Your task to perform on an android device: open the mobile data screen to see how much data has been used Image 0: 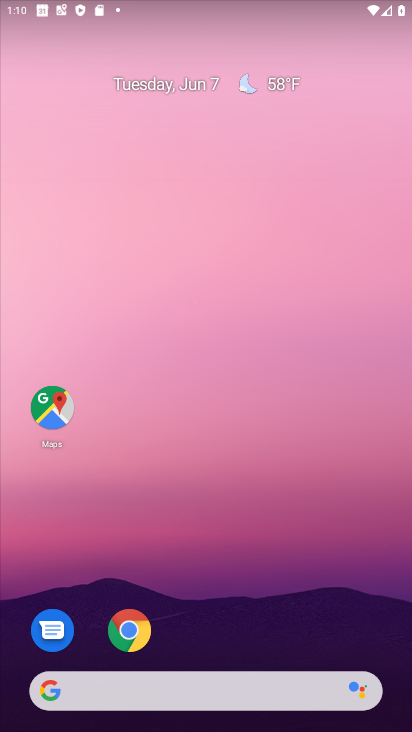
Step 0: drag from (260, 620) to (196, 55)
Your task to perform on an android device: open the mobile data screen to see how much data has been used Image 1: 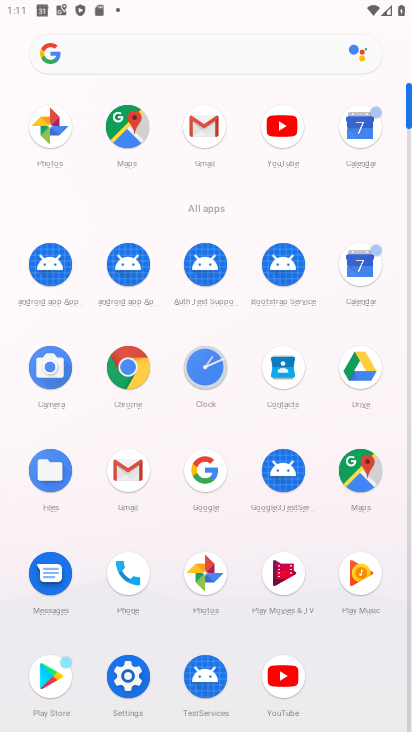
Step 1: click (128, 675)
Your task to perform on an android device: open the mobile data screen to see how much data has been used Image 2: 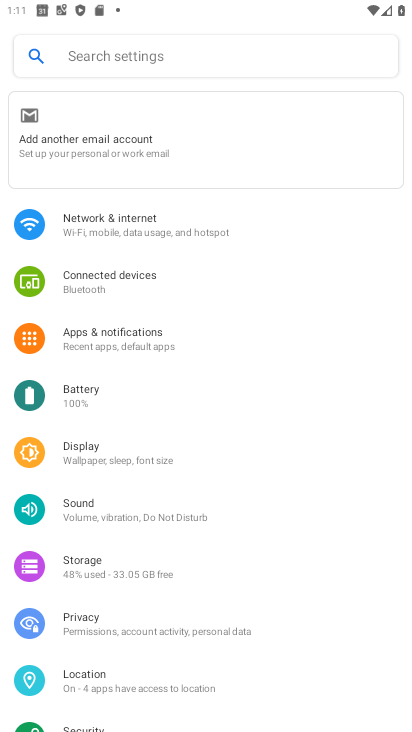
Step 2: click (144, 231)
Your task to perform on an android device: open the mobile data screen to see how much data has been used Image 3: 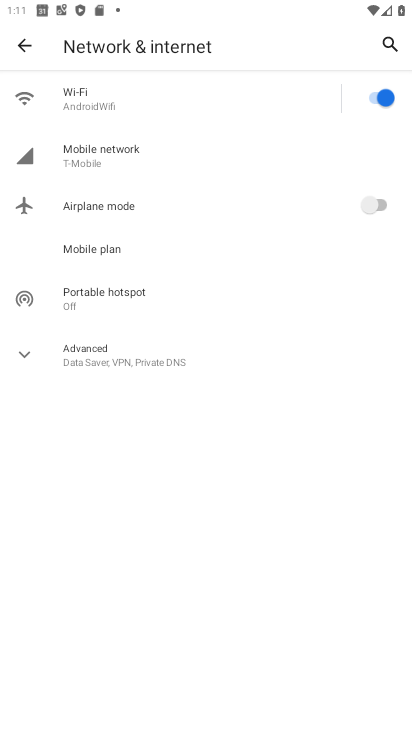
Step 3: click (114, 157)
Your task to perform on an android device: open the mobile data screen to see how much data has been used Image 4: 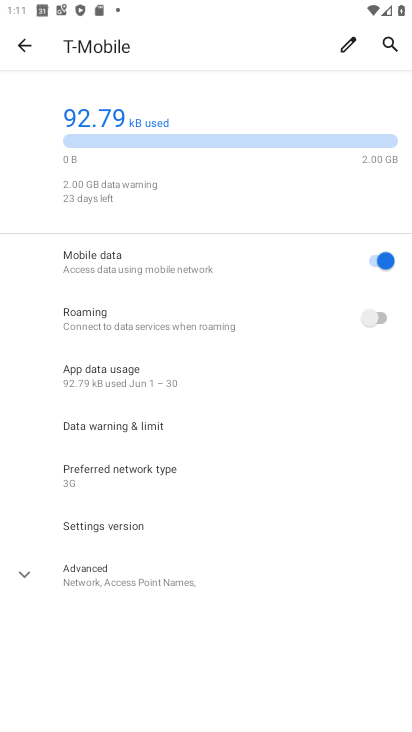
Step 4: task complete